Your task to perform on an android device: see sites visited before in the chrome app Image 0: 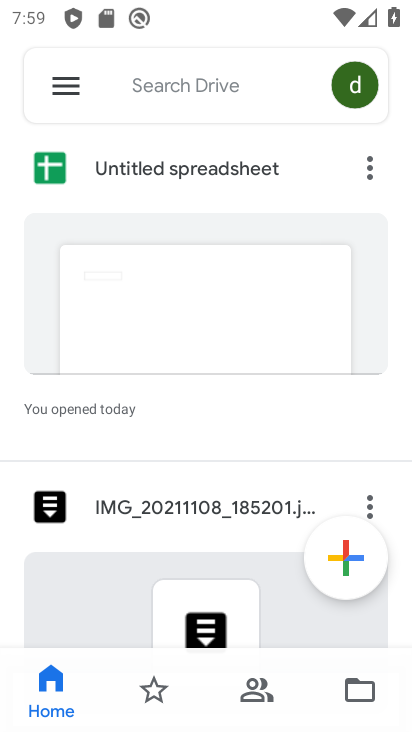
Step 0: press back button
Your task to perform on an android device: see sites visited before in the chrome app Image 1: 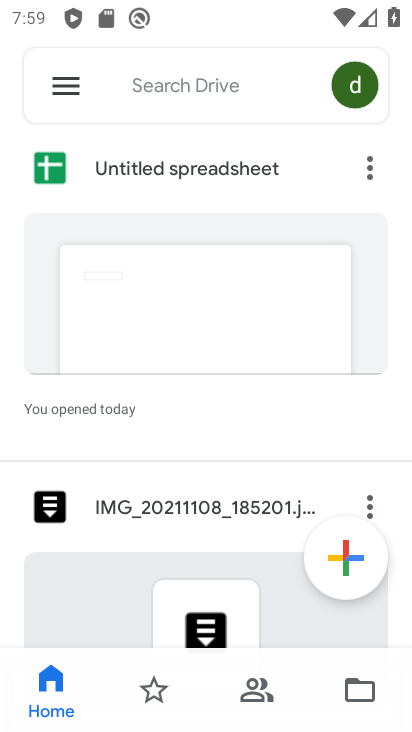
Step 1: press home button
Your task to perform on an android device: see sites visited before in the chrome app Image 2: 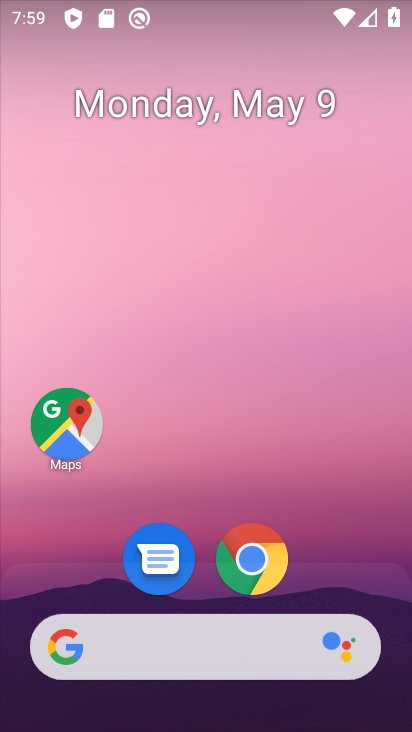
Step 2: press back button
Your task to perform on an android device: see sites visited before in the chrome app Image 3: 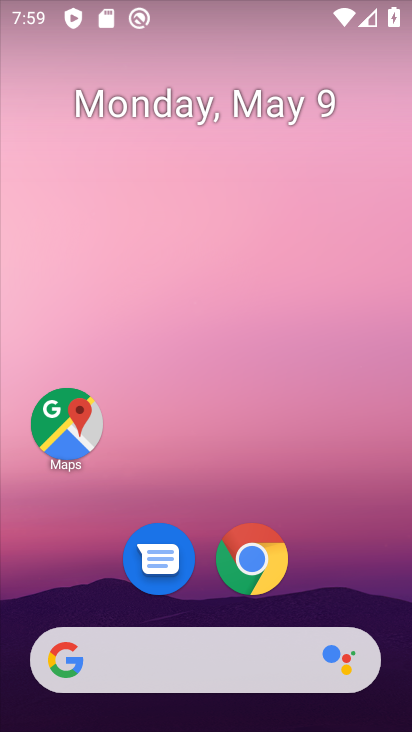
Step 3: drag from (361, 607) to (166, 1)
Your task to perform on an android device: see sites visited before in the chrome app Image 4: 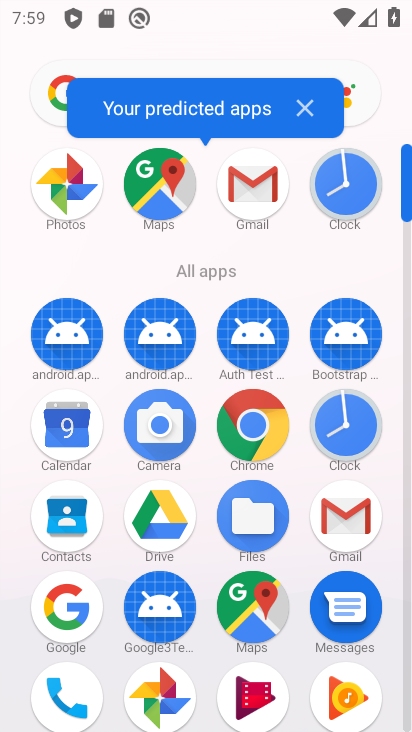
Step 4: click (249, 419)
Your task to perform on an android device: see sites visited before in the chrome app Image 5: 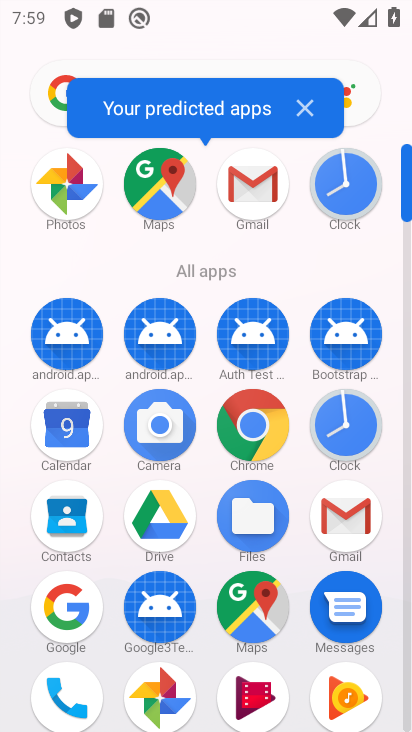
Step 5: click (249, 417)
Your task to perform on an android device: see sites visited before in the chrome app Image 6: 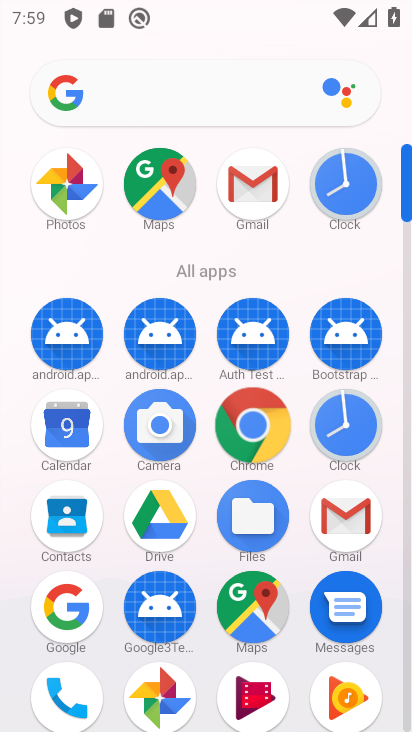
Step 6: click (249, 417)
Your task to perform on an android device: see sites visited before in the chrome app Image 7: 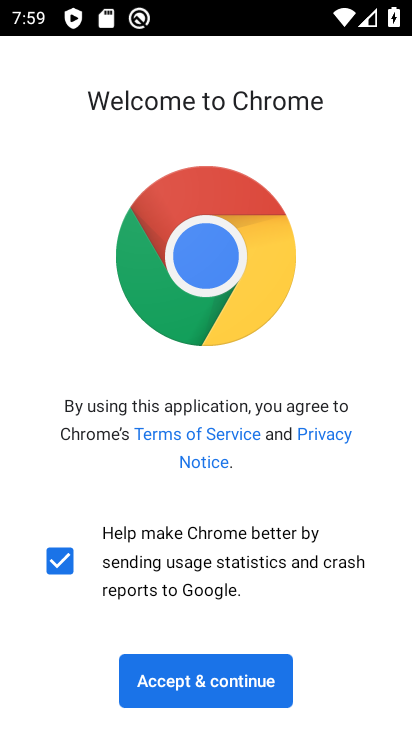
Step 7: click (249, 417)
Your task to perform on an android device: see sites visited before in the chrome app Image 8: 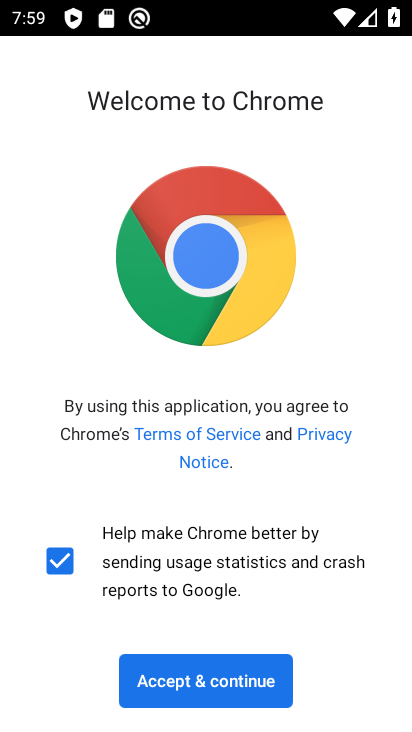
Step 8: click (250, 413)
Your task to perform on an android device: see sites visited before in the chrome app Image 9: 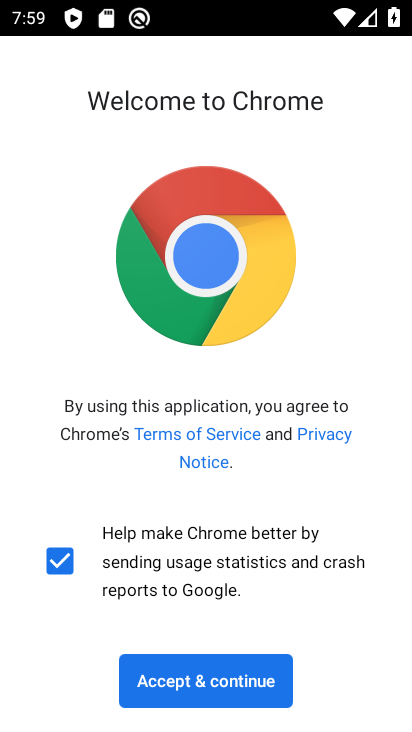
Step 9: click (175, 690)
Your task to perform on an android device: see sites visited before in the chrome app Image 10: 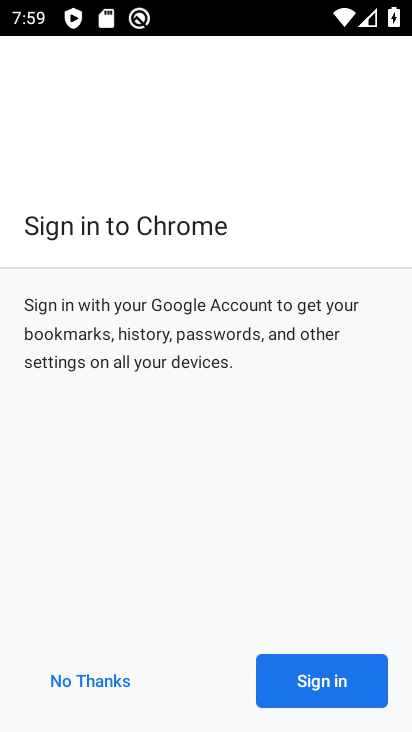
Step 10: click (179, 685)
Your task to perform on an android device: see sites visited before in the chrome app Image 11: 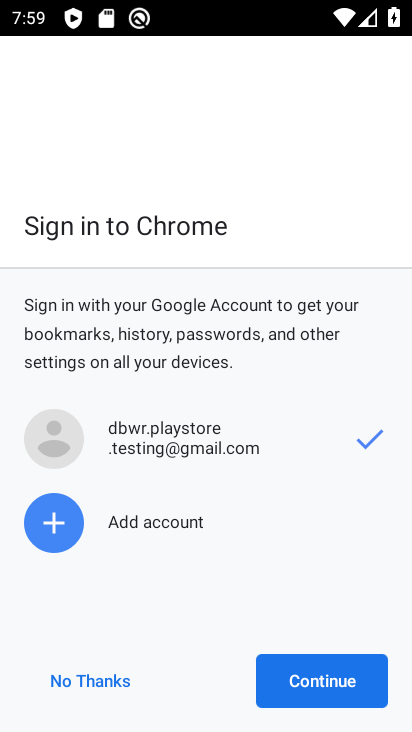
Step 11: click (332, 687)
Your task to perform on an android device: see sites visited before in the chrome app Image 12: 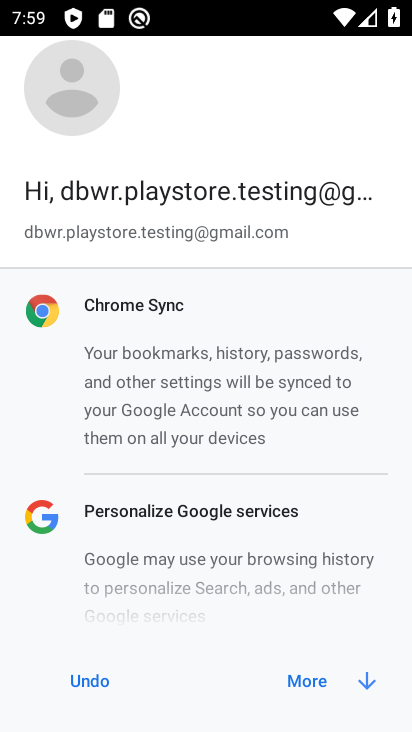
Step 12: click (330, 687)
Your task to perform on an android device: see sites visited before in the chrome app Image 13: 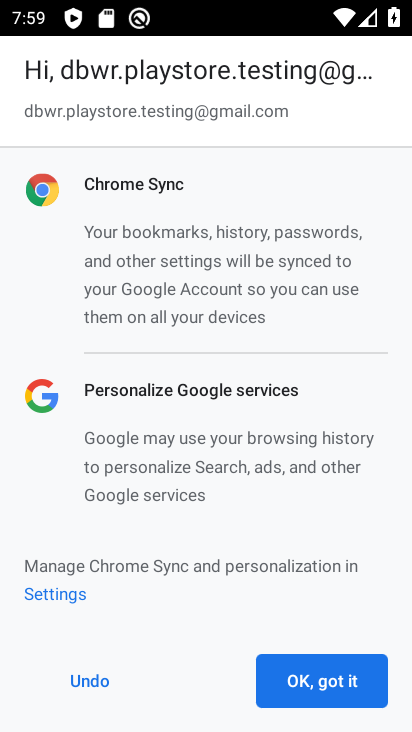
Step 13: click (329, 687)
Your task to perform on an android device: see sites visited before in the chrome app Image 14: 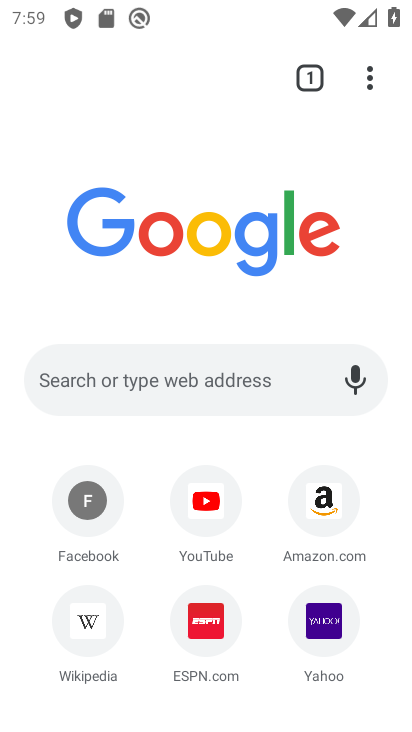
Step 14: click (342, 138)
Your task to perform on an android device: see sites visited before in the chrome app Image 15: 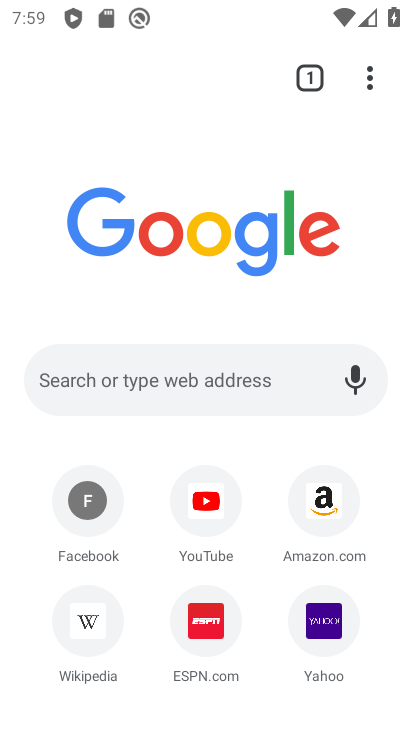
Step 15: click (360, 74)
Your task to perform on an android device: see sites visited before in the chrome app Image 16: 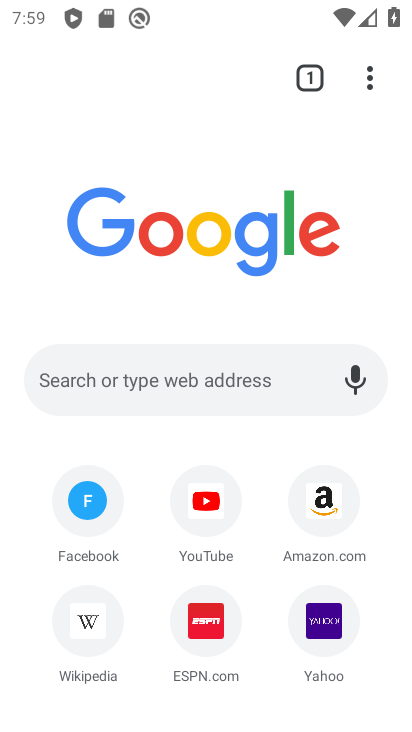
Step 16: click (374, 77)
Your task to perform on an android device: see sites visited before in the chrome app Image 17: 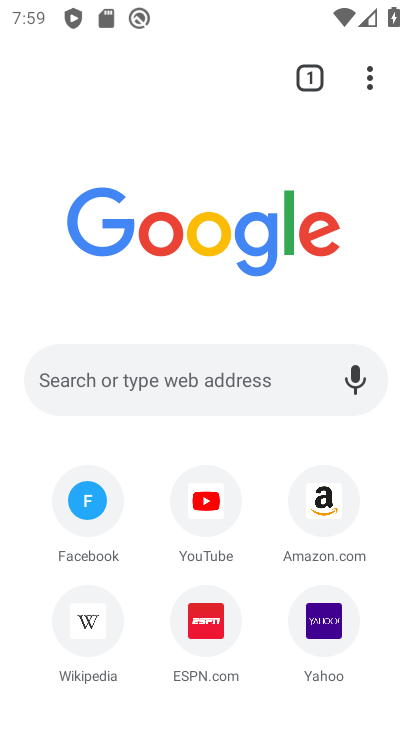
Step 17: drag from (368, 82) to (99, 325)
Your task to perform on an android device: see sites visited before in the chrome app Image 18: 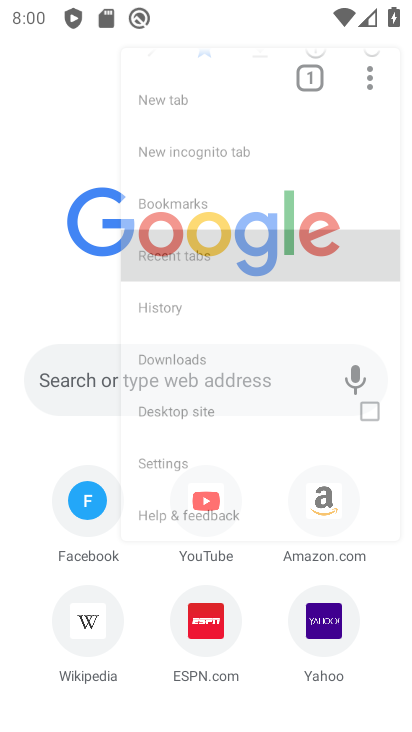
Step 18: click (101, 326)
Your task to perform on an android device: see sites visited before in the chrome app Image 19: 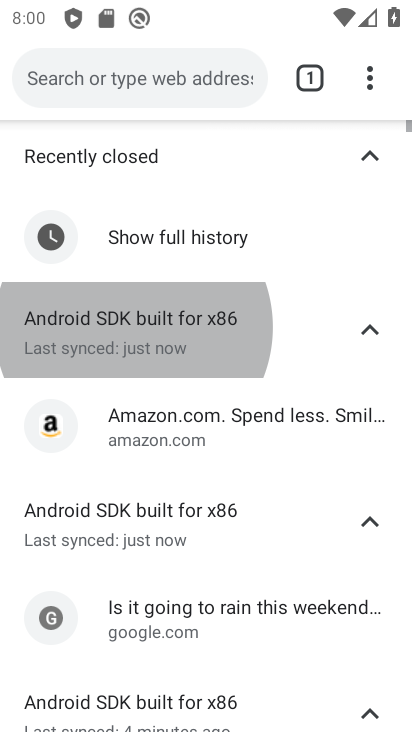
Step 19: click (103, 322)
Your task to perform on an android device: see sites visited before in the chrome app Image 20: 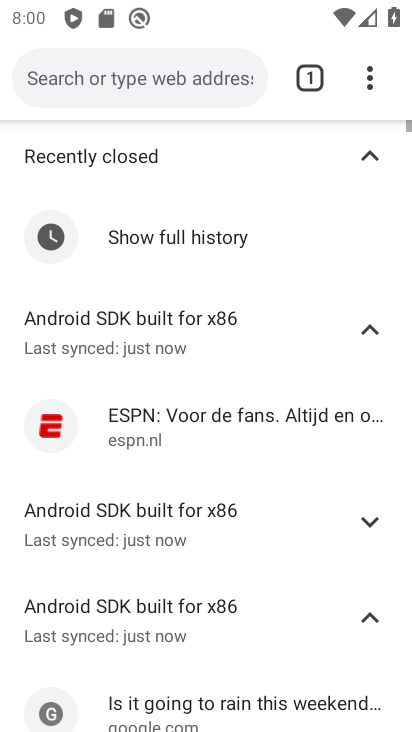
Step 20: task complete